Your task to perform on an android device: toggle location history Image 0: 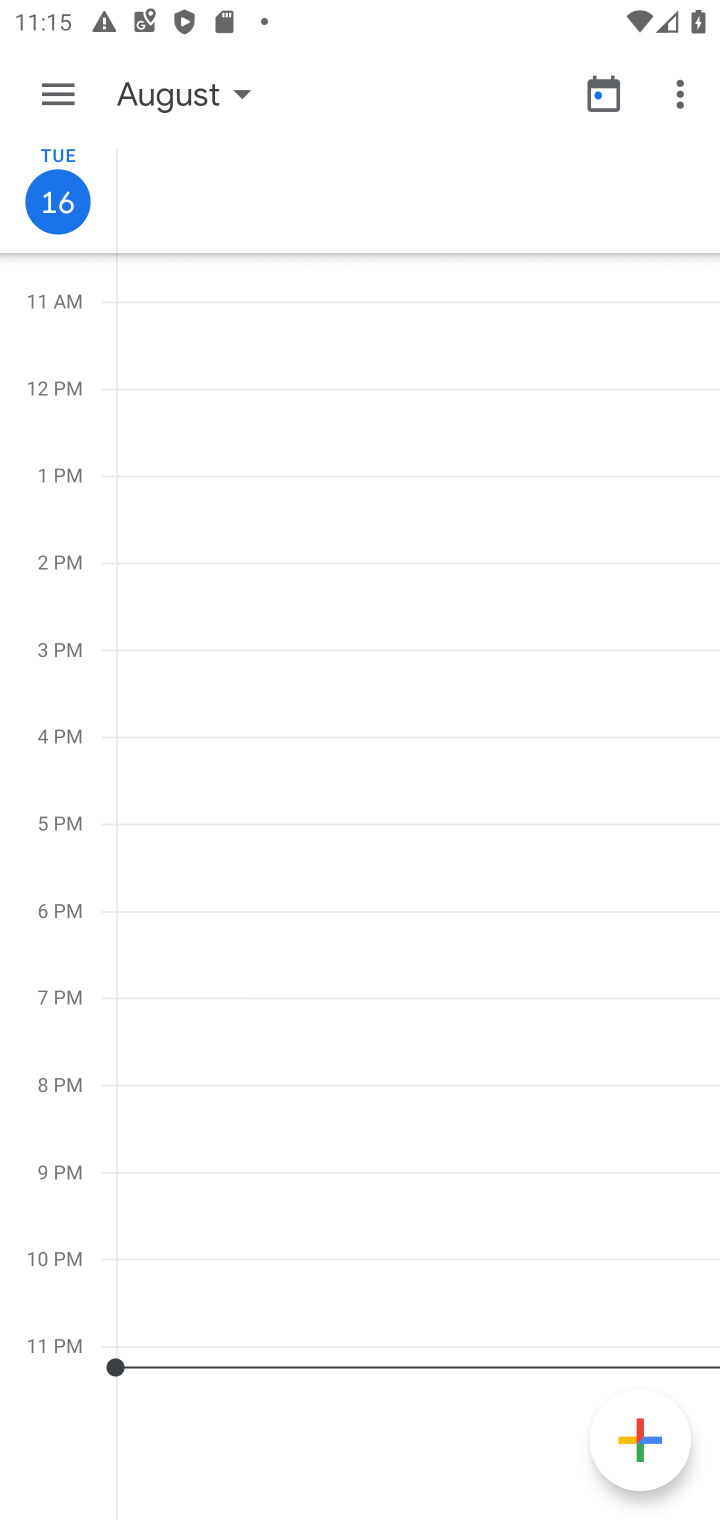
Step 0: press home button
Your task to perform on an android device: toggle location history Image 1: 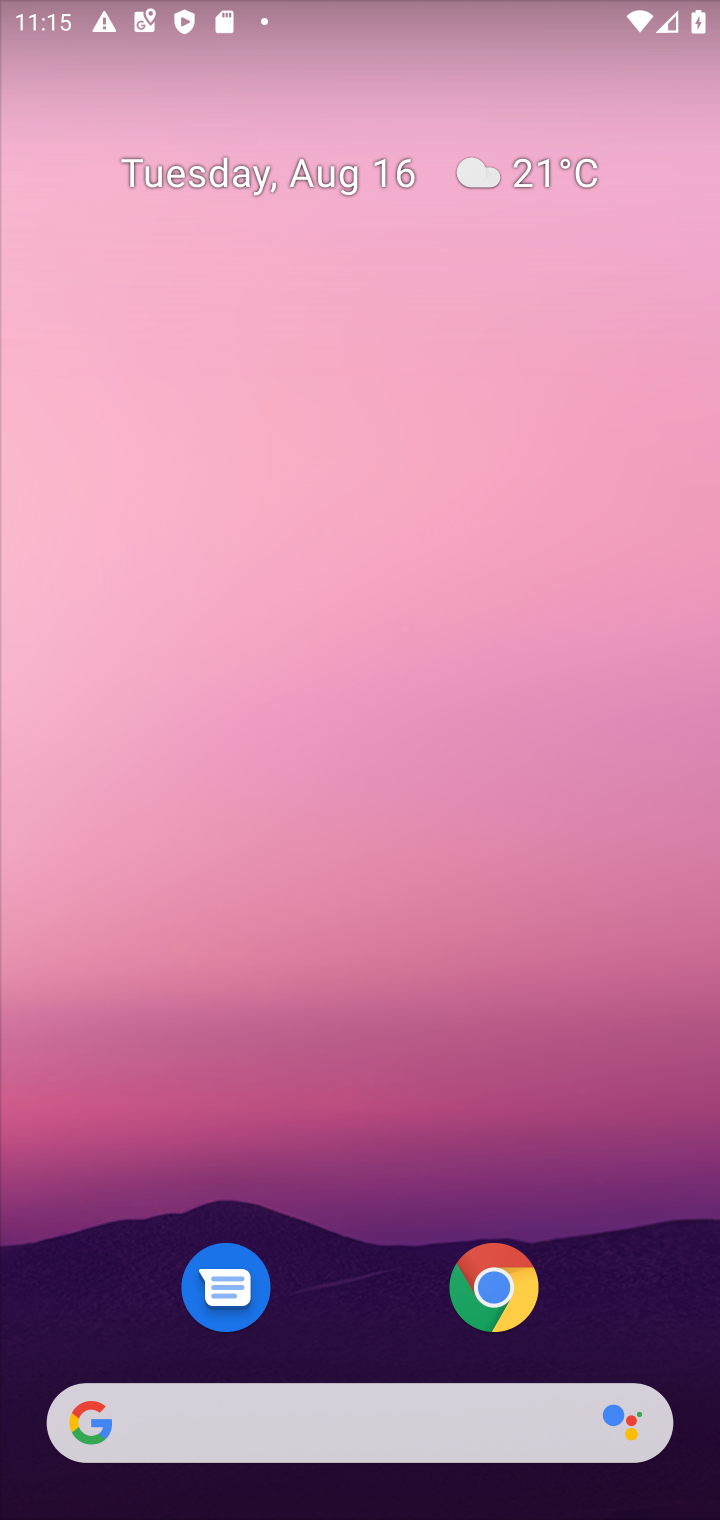
Step 1: drag from (626, 1003) to (630, 271)
Your task to perform on an android device: toggle location history Image 2: 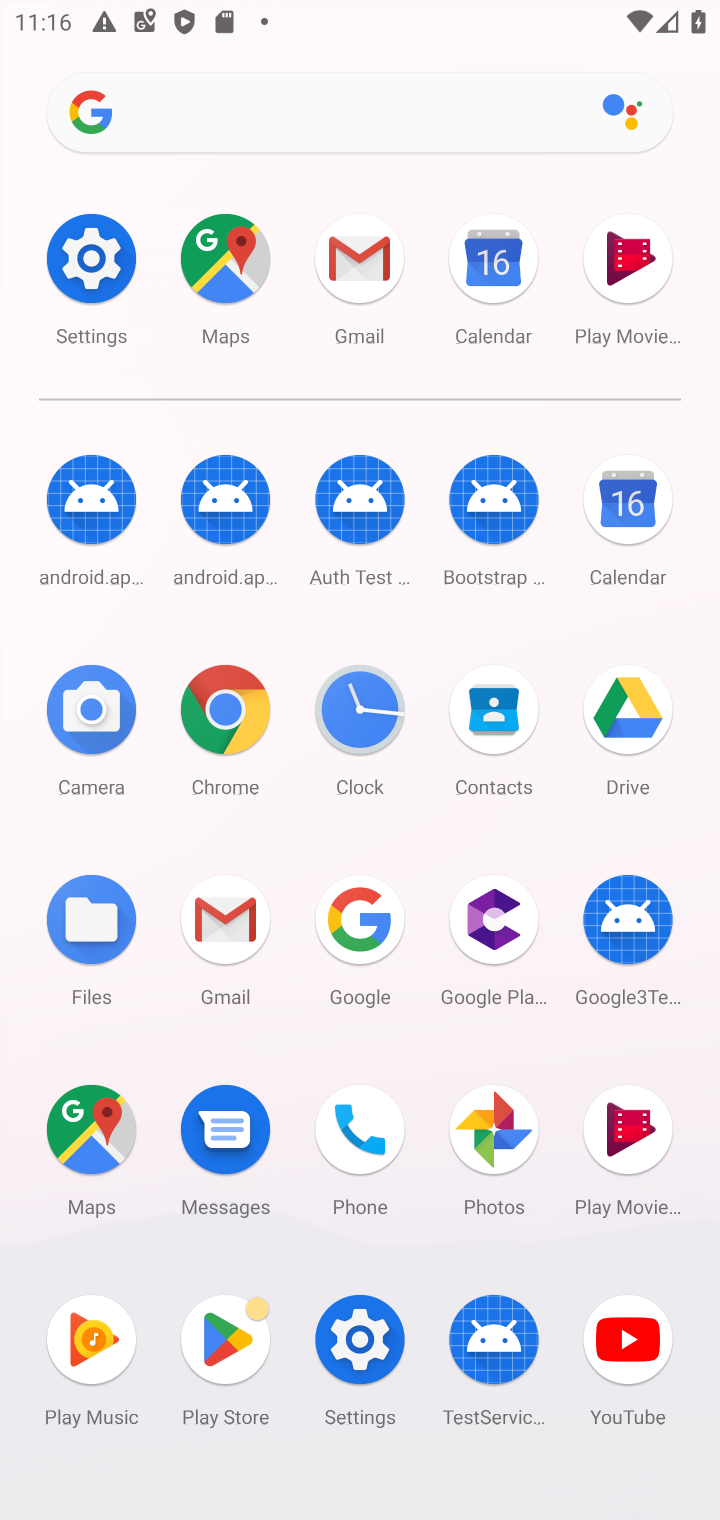
Step 2: click (82, 1132)
Your task to perform on an android device: toggle location history Image 3: 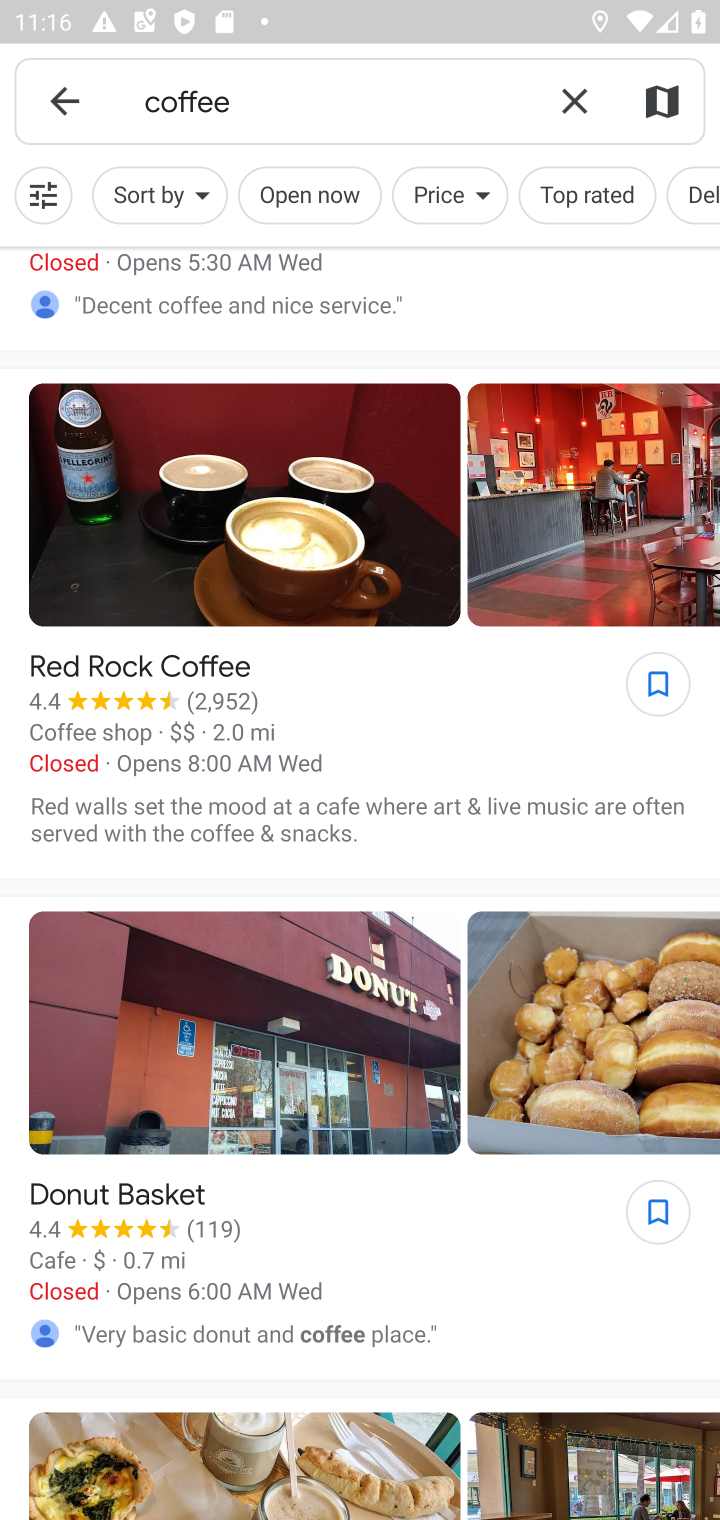
Step 3: click (573, 97)
Your task to perform on an android device: toggle location history Image 4: 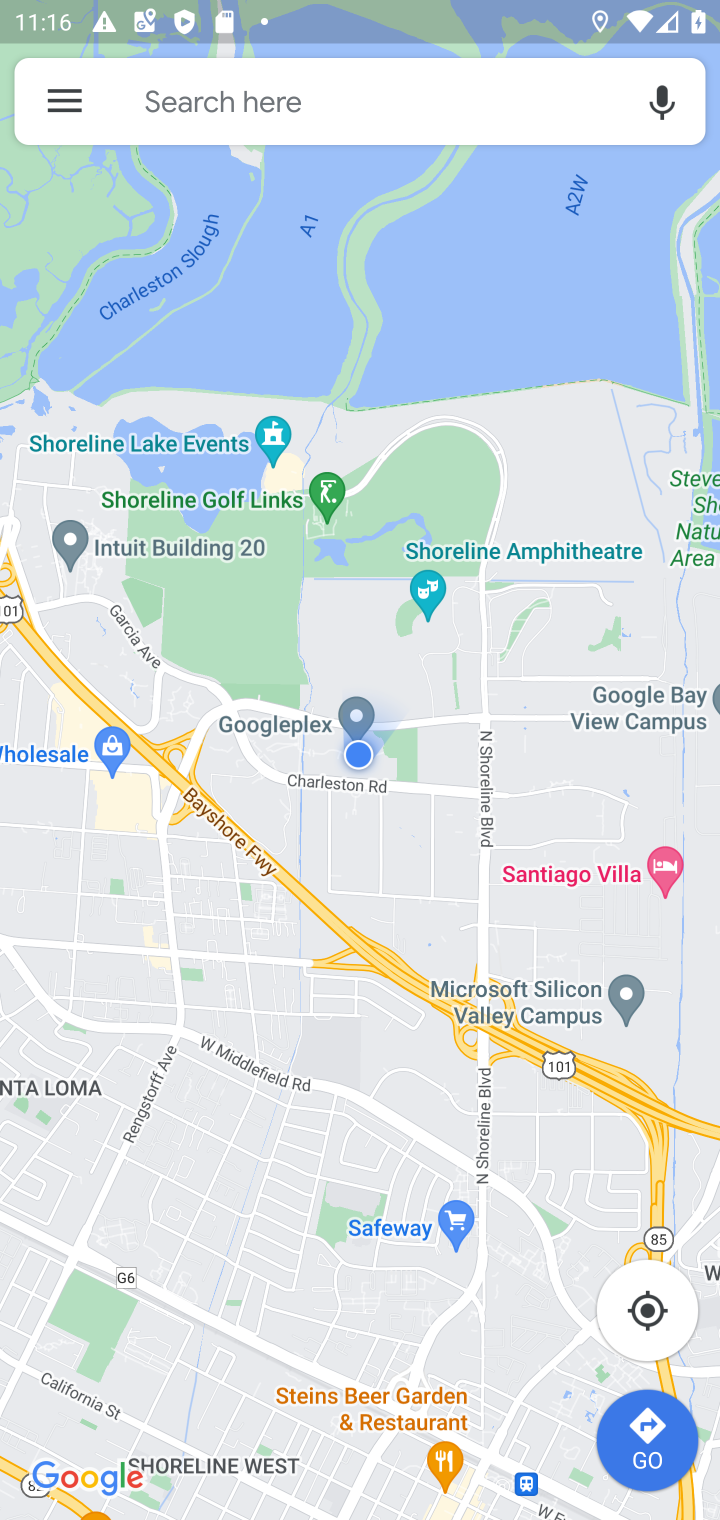
Step 4: click (56, 107)
Your task to perform on an android device: toggle location history Image 5: 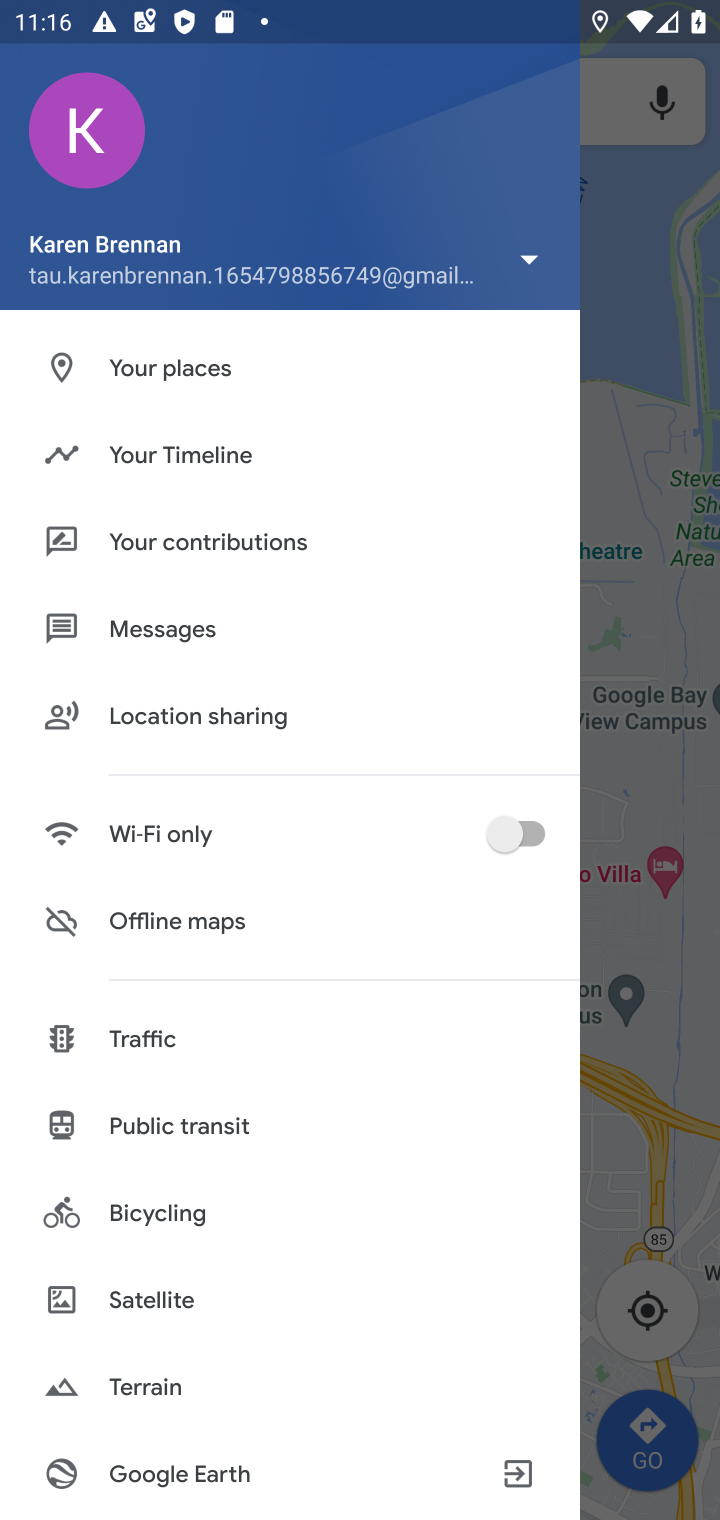
Step 5: drag from (299, 1461) to (306, 626)
Your task to perform on an android device: toggle location history Image 6: 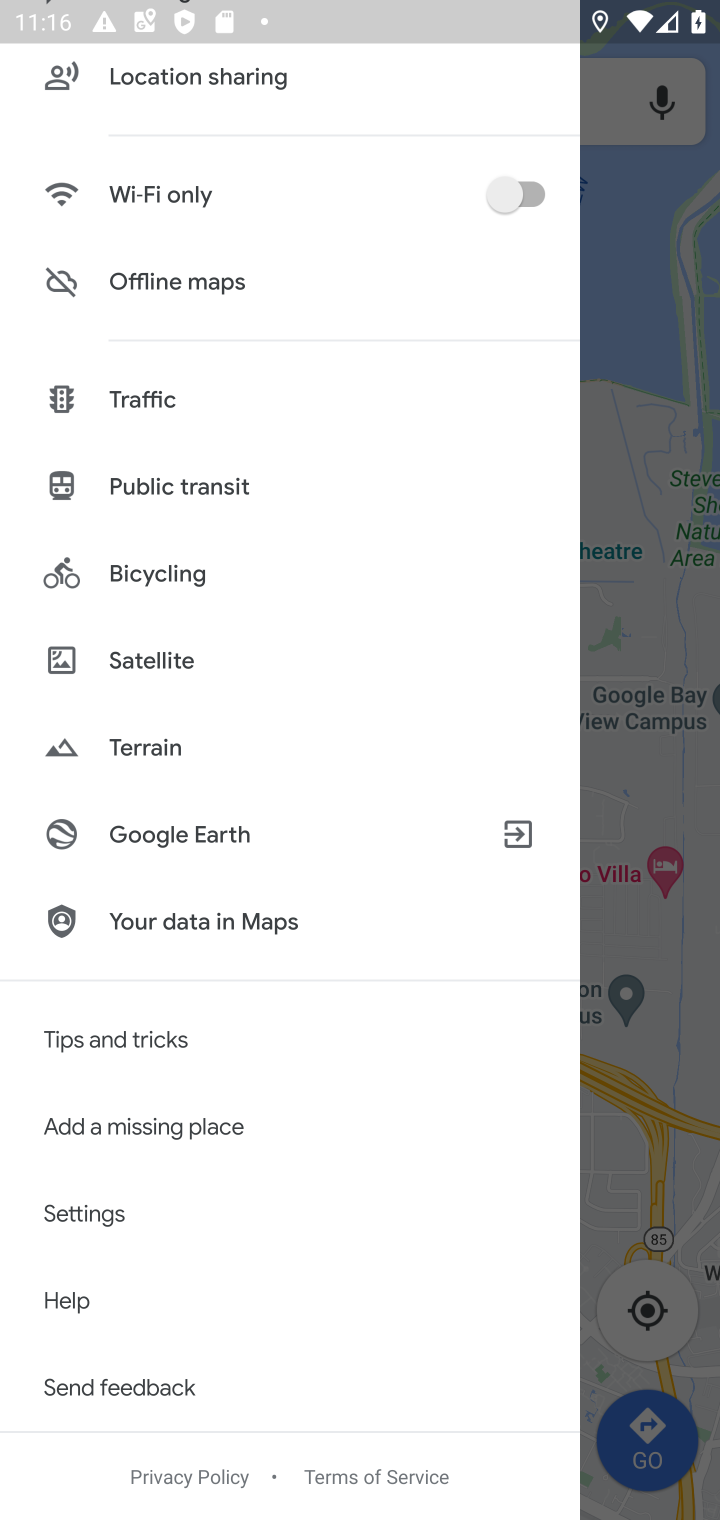
Step 6: click (92, 1202)
Your task to perform on an android device: toggle location history Image 7: 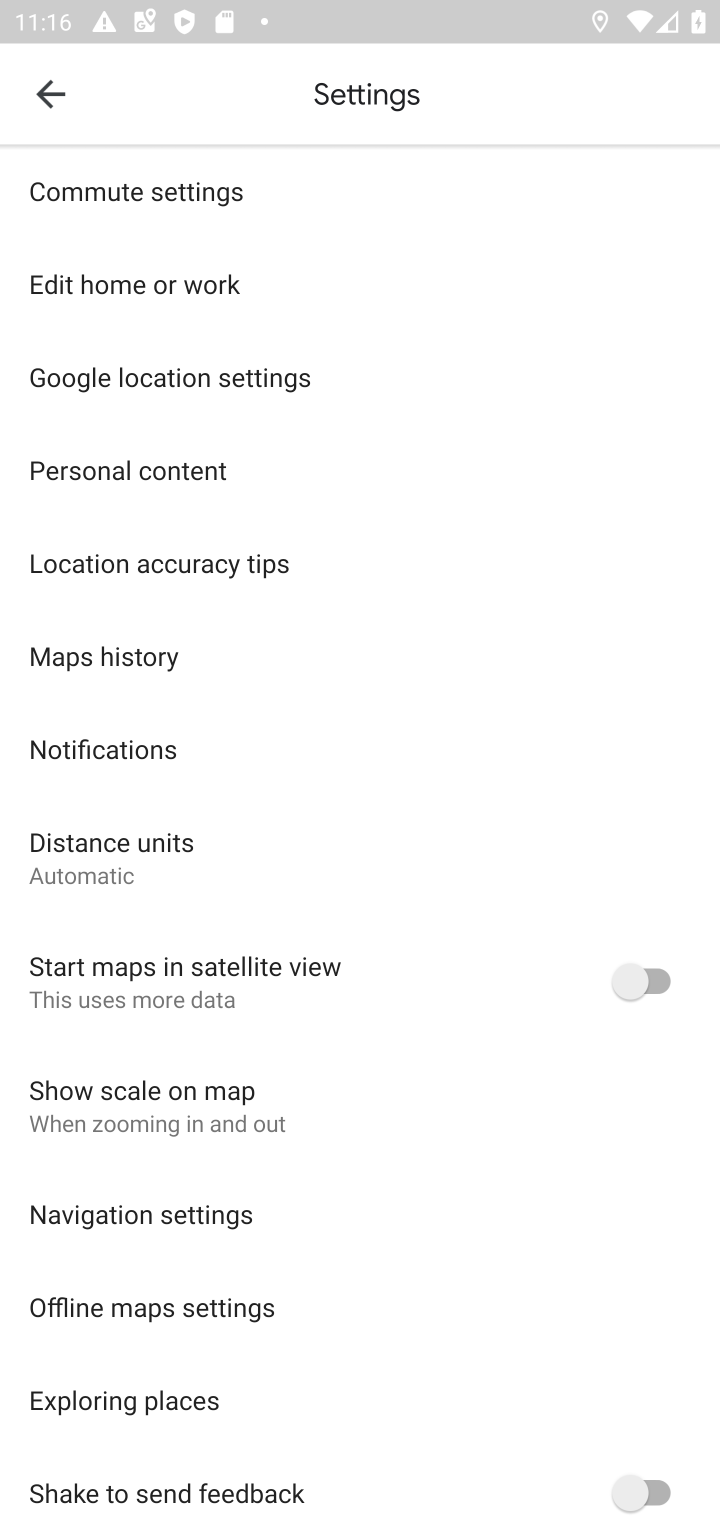
Step 7: click (121, 482)
Your task to perform on an android device: toggle location history Image 8: 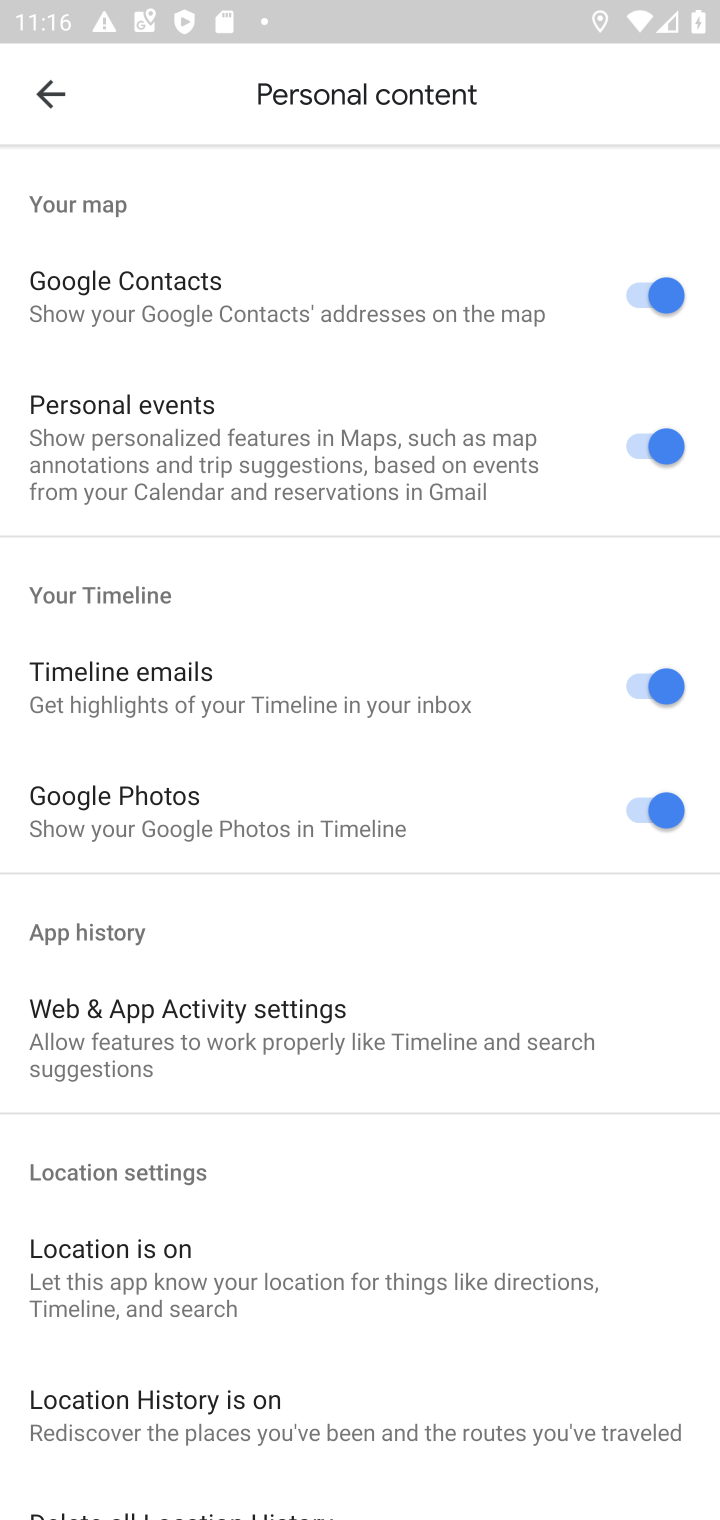
Step 8: drag from (397, 1182) to (382, 388)
Your task to perform on an android device: toggle location history Image 9: 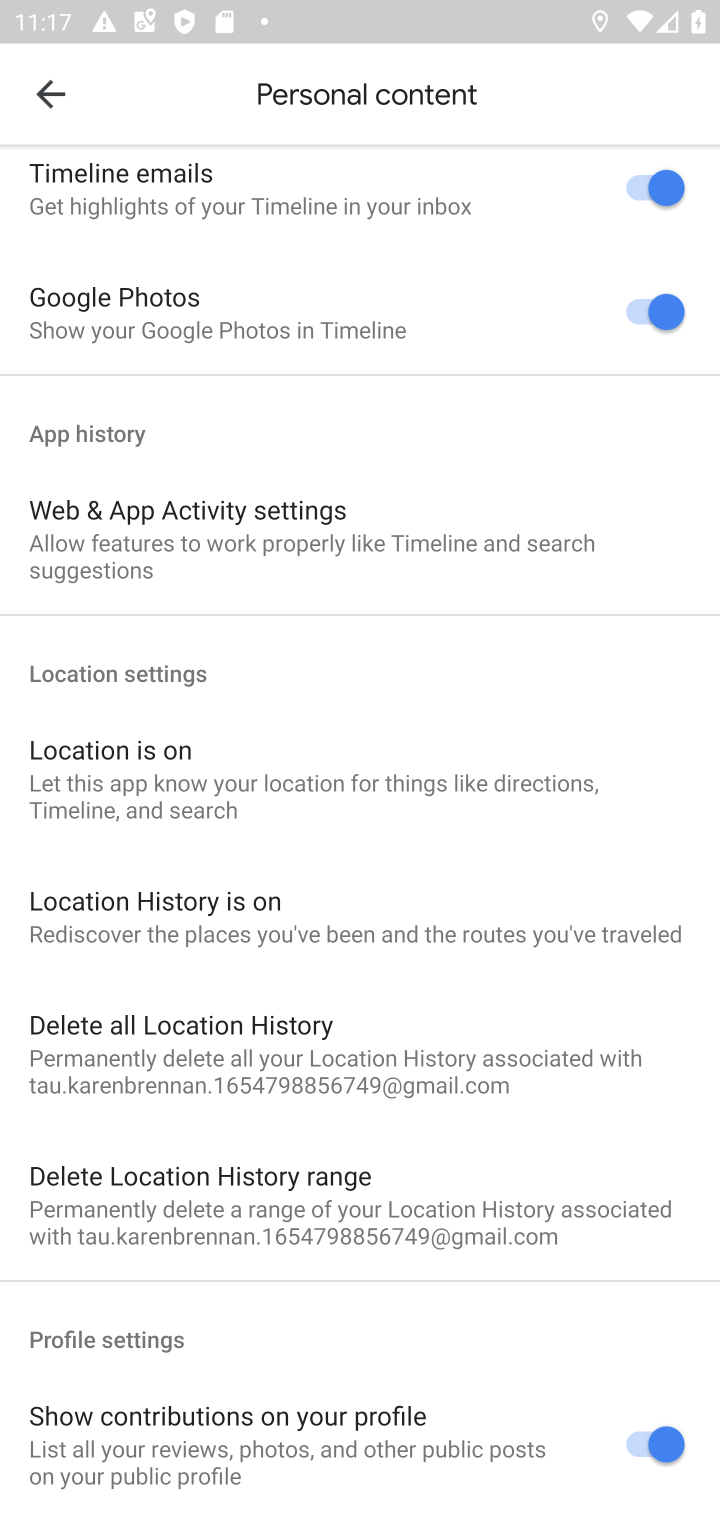
Step 9: click (139, 917)
Your task to perform on an android device: toggle location history Image 10: 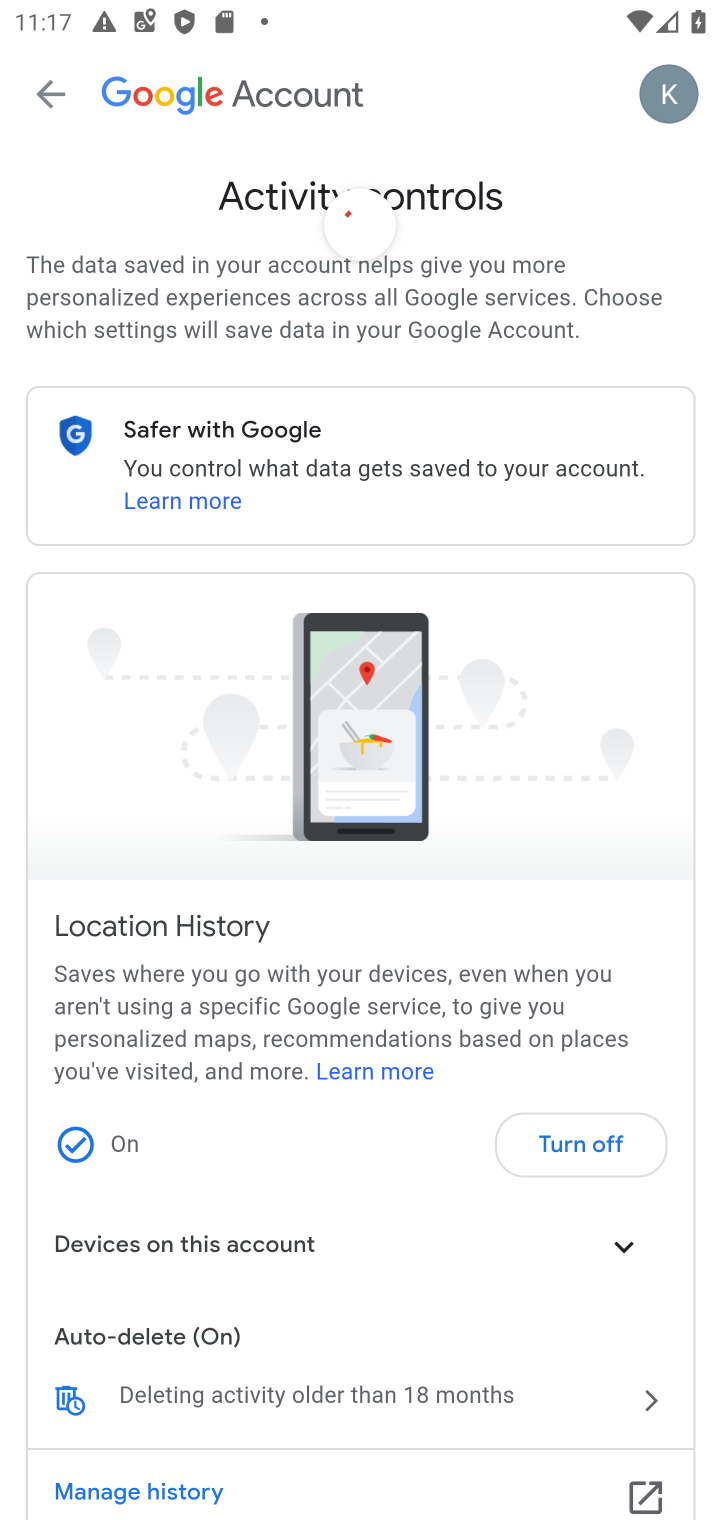
Step 10: click (586, 1133)
Your task to perform on an android device: toggle location history Image 11: 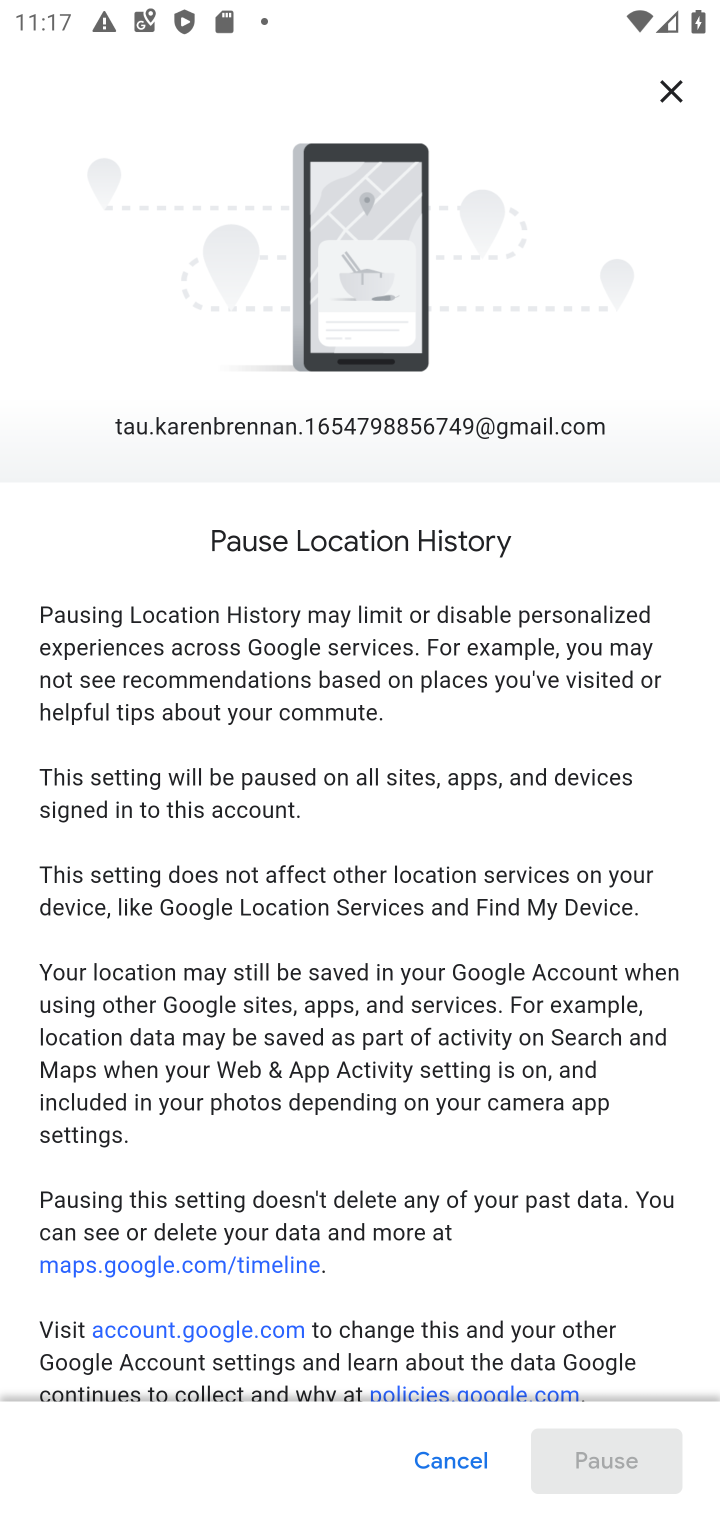
Step 11: drag from (534, 1307) to (520, 424)
Your task to perform on an android device: toggle location history Image 12: 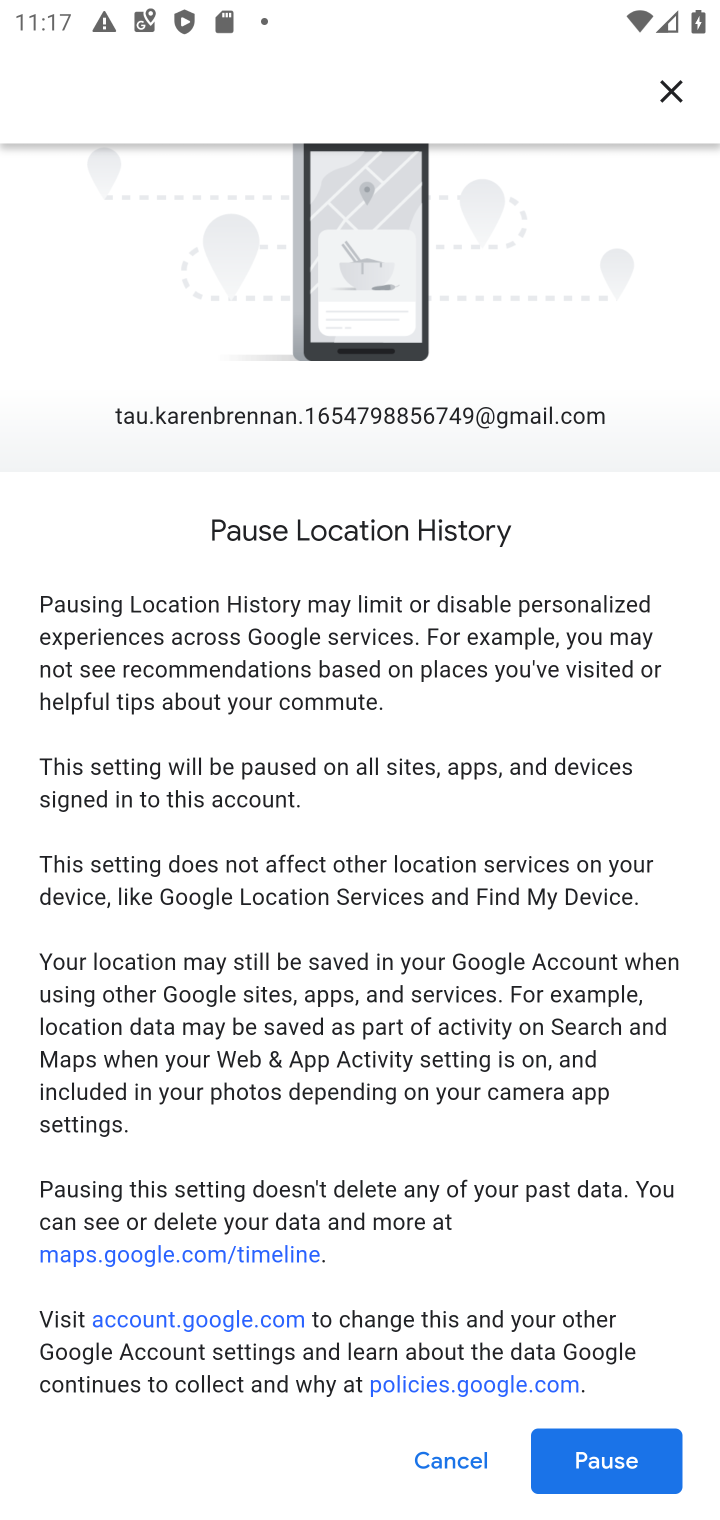
Step 12: click (614, 1471)
Your task to perform on an android device: toggle location history Image 13: 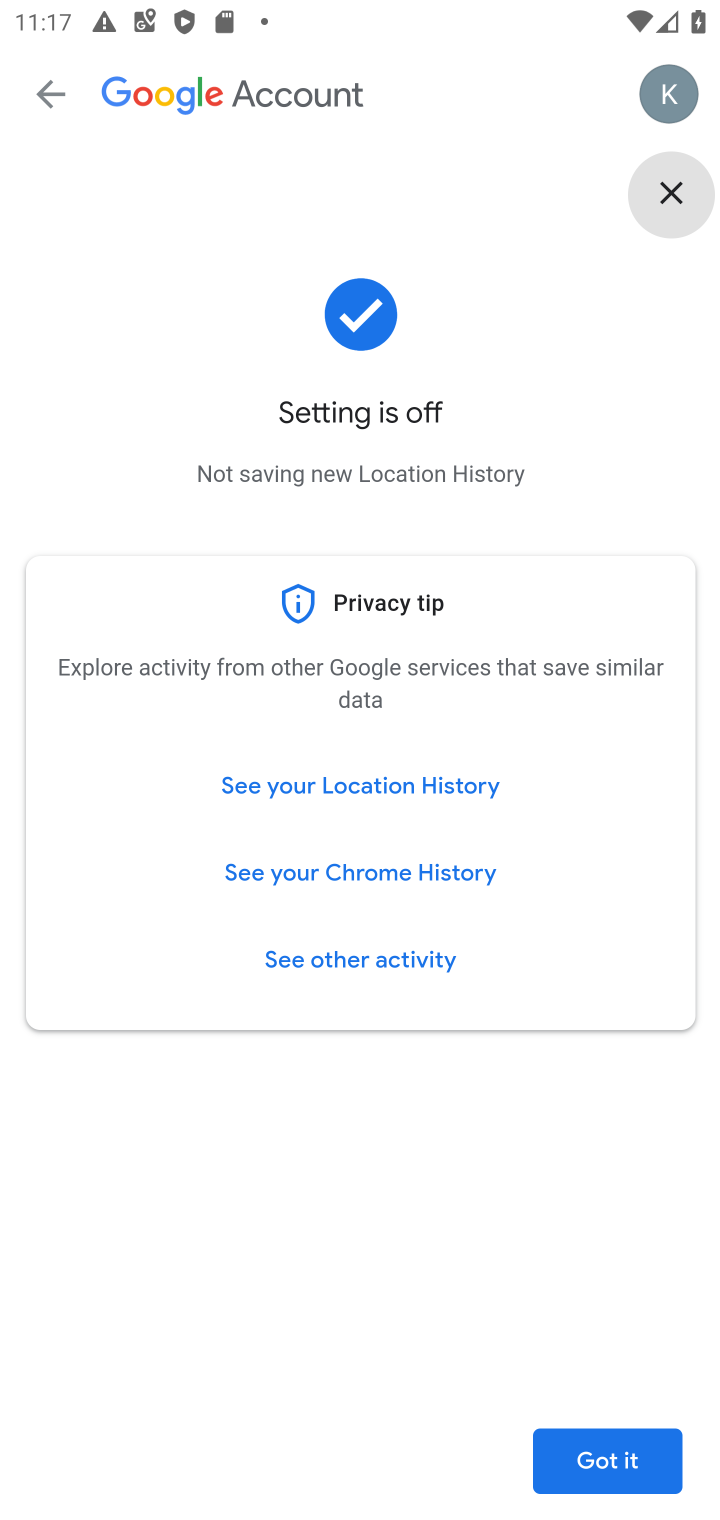
Step 13: click (611, 1456)
Your task to perform on an android device: toggle location history Image 14: 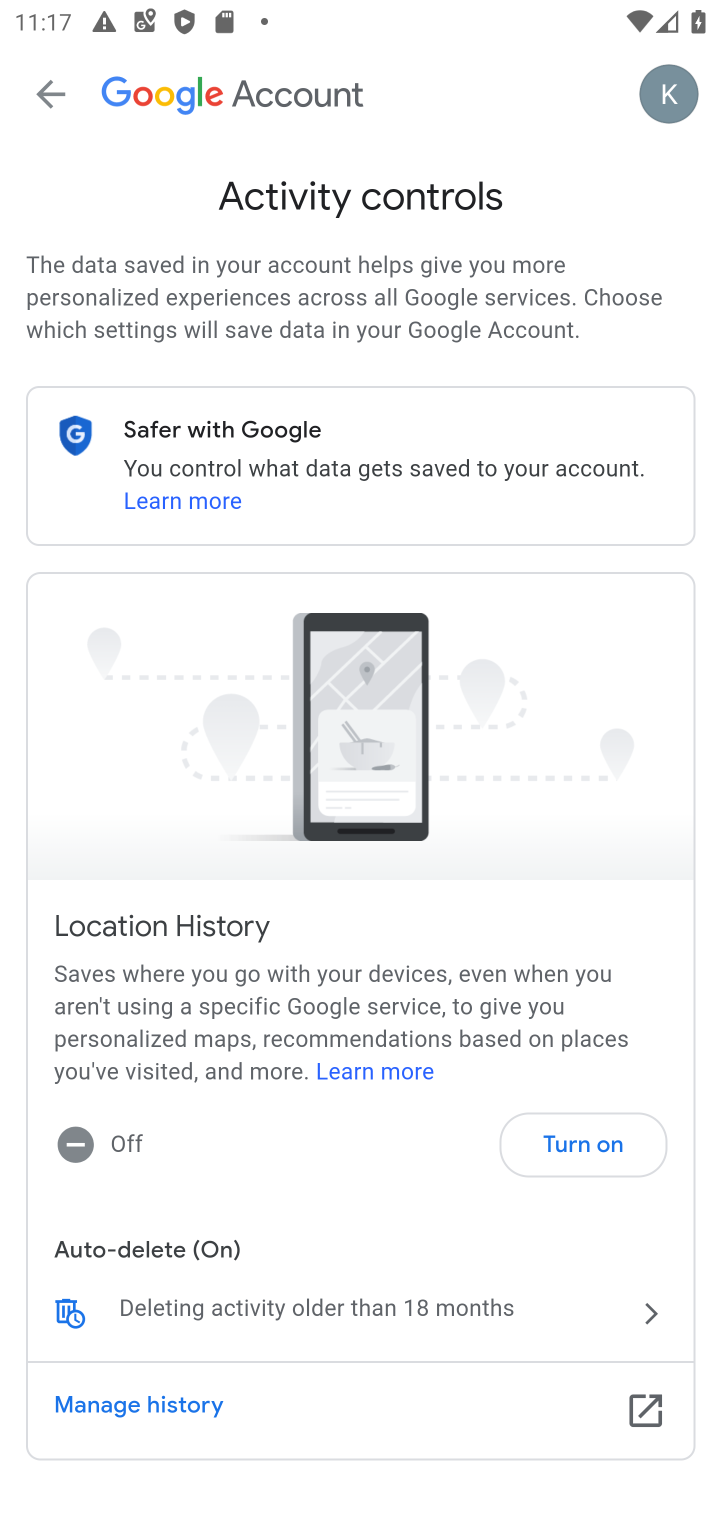
Step 14: task complete